Your task to perform on an android device: Show me the alarms in the clock app Image 0: 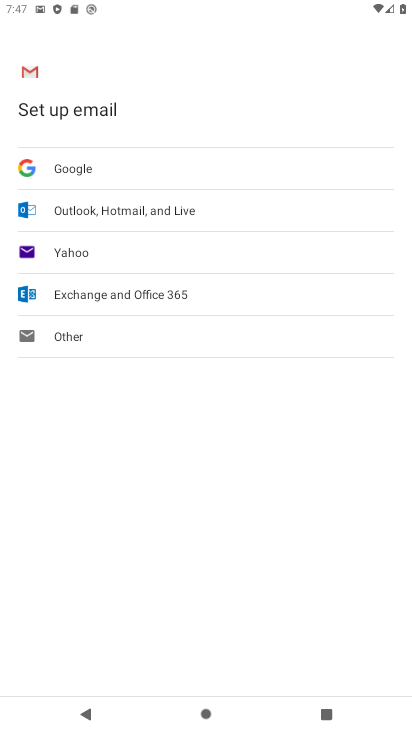
Step 0: press home button
Your task to perform on an android device: Show me the alarms in the clock app Image 1: 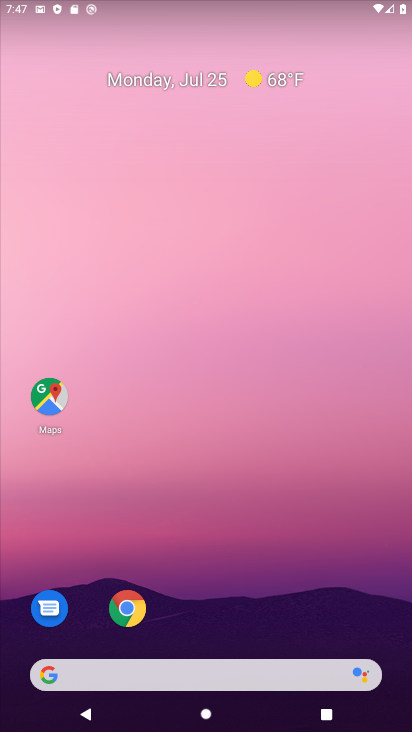
Step 1: drag from (210, 648) to (235, 2)
Your task to perform on an android device: Show me the alarms in the clock app Image 2: 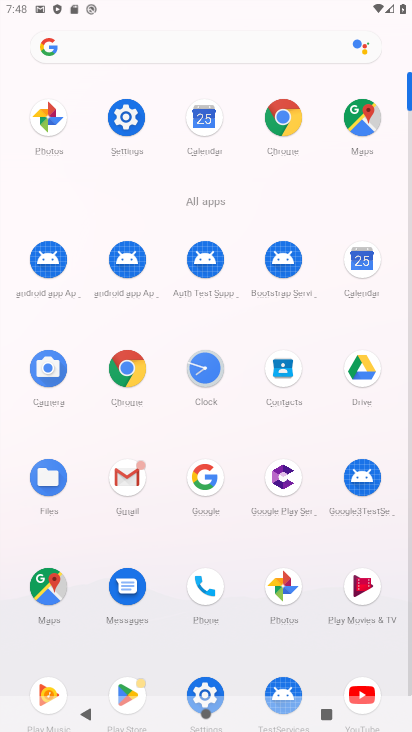
Step 2: click (204, 372)
Your task to perform on an android device: Show me the alarms in the clock app Image 3: 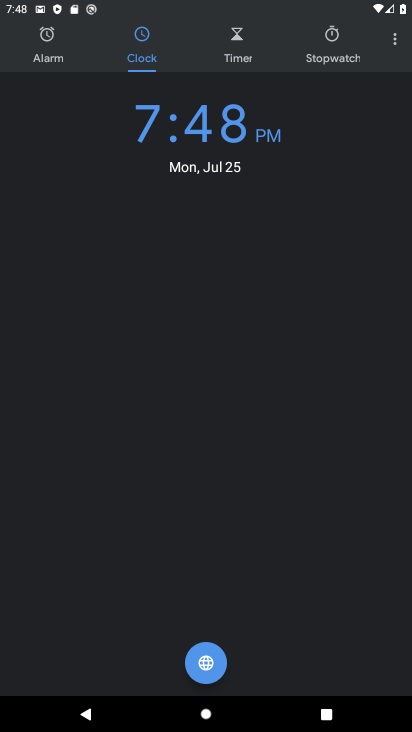
Step 3: click (48, 53)
Your task to perform on an android device: Show me the alarms in the clock app Image 4: 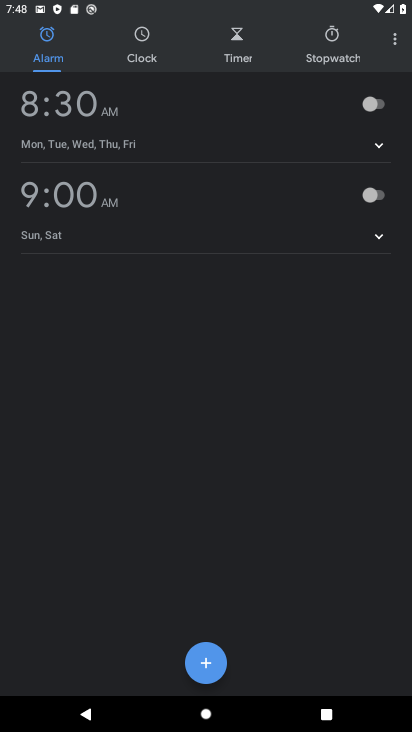
Step 4: task complete